Your task to perform on an android device: change the clock display to digital Image 0: 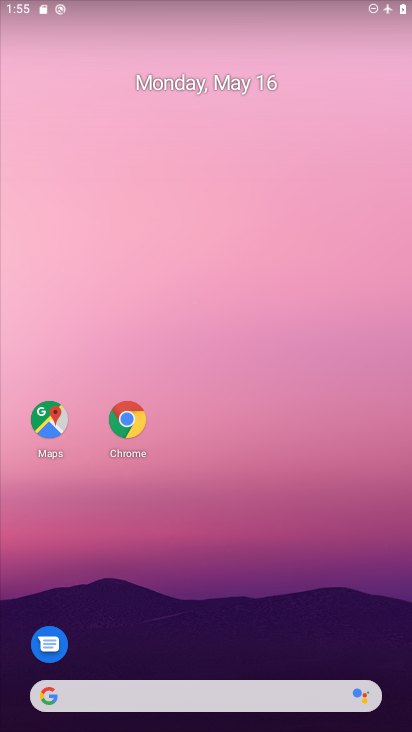
Step 0: drag from (207, 657) to (368, 5)
Your task to perform on an android device: change the clock display to digital Image 1: 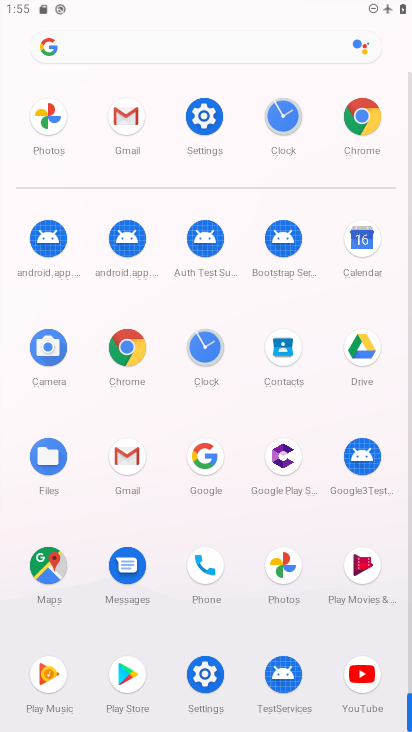
Step 1: click (193, 347)
Your task to perform on an android device: change the clock display to digital Image 2: 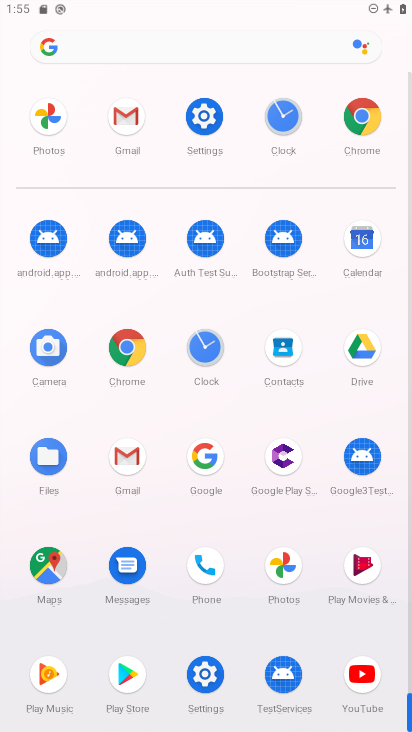
Step 2: click (193, 347)
Your task to perform on an android device: change the clock display to digital Image 3: 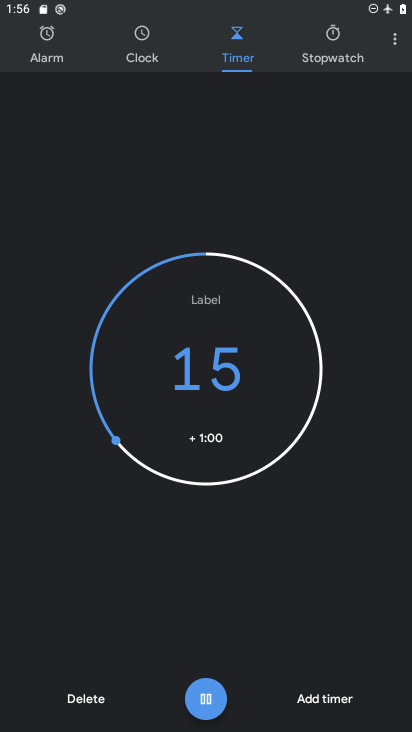
Step 3: click (393, 50)
Your task to perform on an android device: change the clock display to digital Image 4: 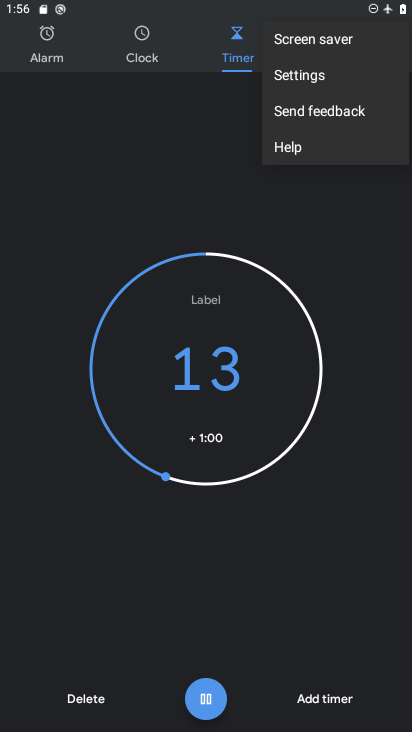
Step 4: click (315, 68)
Your task to perform on an android device: change the clock display to digital Image 5: 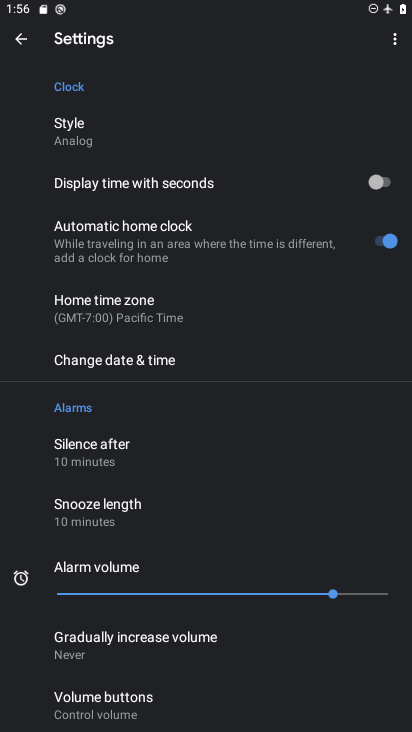
Step 5: click (110, 121)
Your task to perform on an android device: change the clock display to digital Image 6: 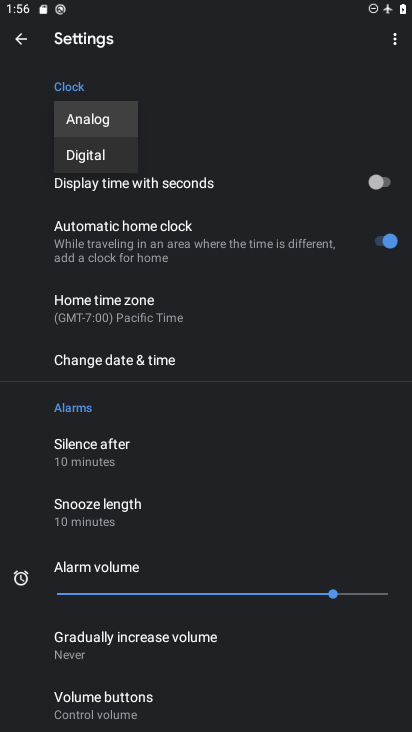
Step 6: click (104, 158)
Your task to perform on an android device: change the clock display to digital Image 7: 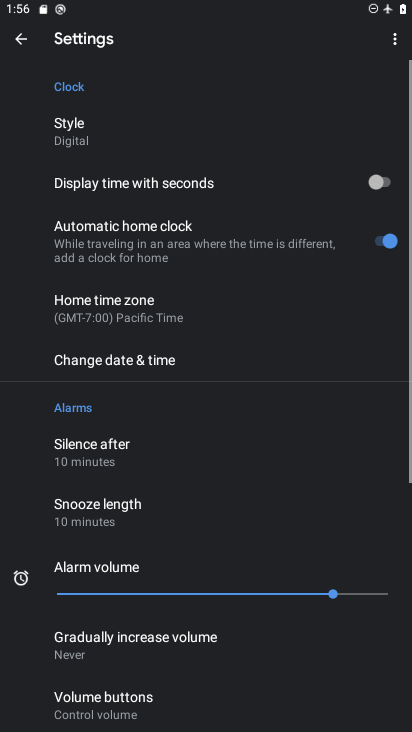
Step 7: task complete